Your task to perform on an android device: Turn on the flashlight Image 0: 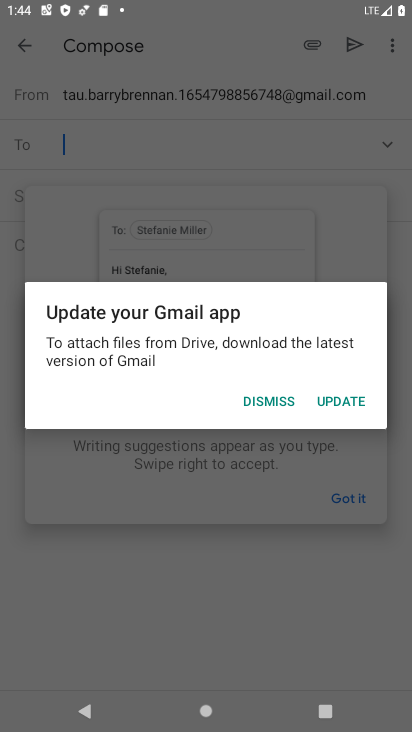
Step 0: click (281, 403)
Your task to perform on an android device: Turn on the flashlight Image 1: 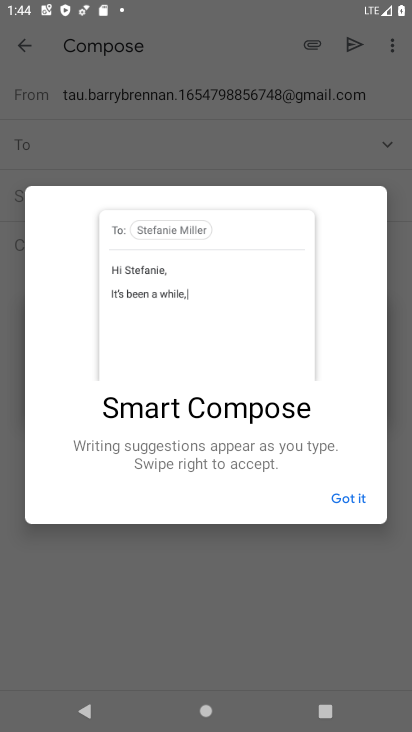
Step 1: task complete